Your task to perform on an android device: Open the phone app and click the voicemail tab. Image 0: 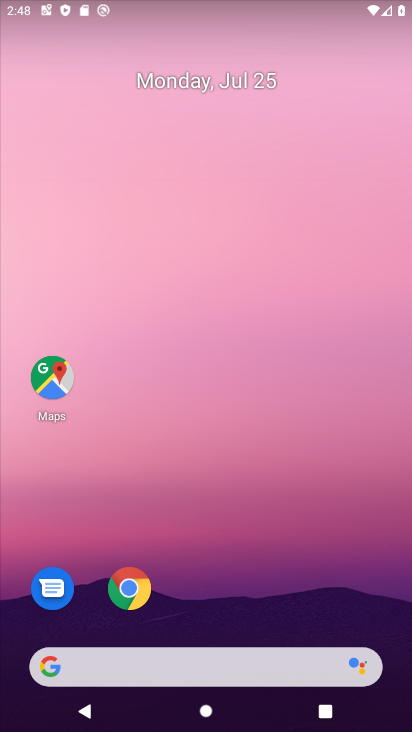
Step 0: drag from (211, 610) to (183, 99)
Your task to perform on an android device: Open the phone app and click the voicemail tab. Image 1: 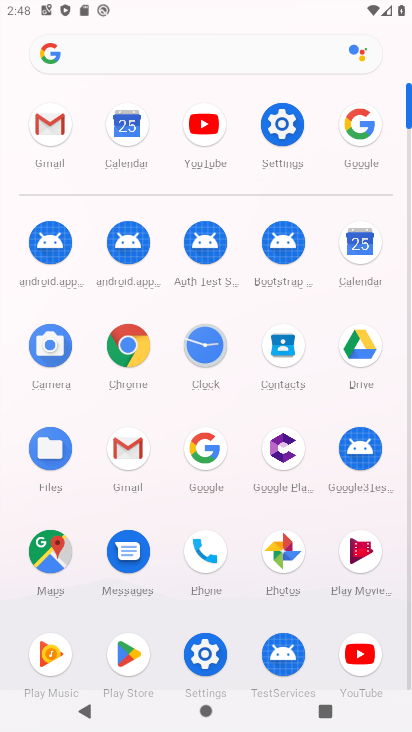
Step 1: click (193, 555)
Your task to perform on an android device: Open the phone app and click the voicemail tab. Image 2: 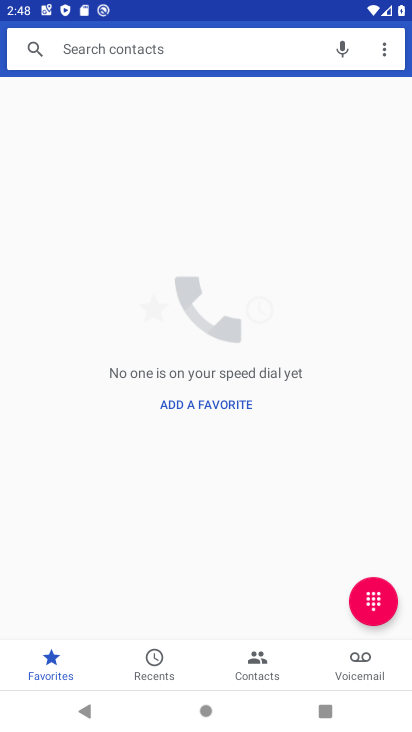
Step 2: click (352, 661)
Your task to perform on an android device: Open the phone app and click the voicemail tab. Image 3: 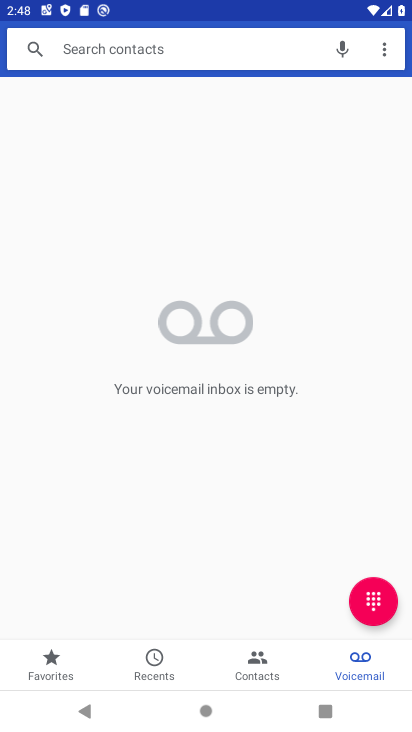
Step 3: task complete